Your task to perform on an android device: allow cookies in the chrome app Image 0: 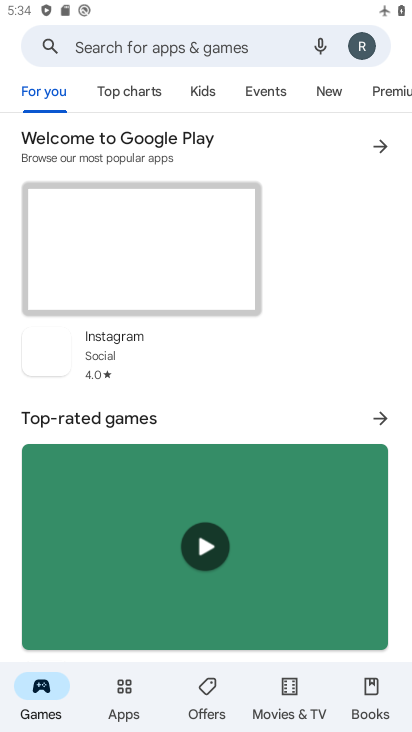
Step 0: press home button
Your task to perform on an android device: allow cookies in the chrome app Image 1: 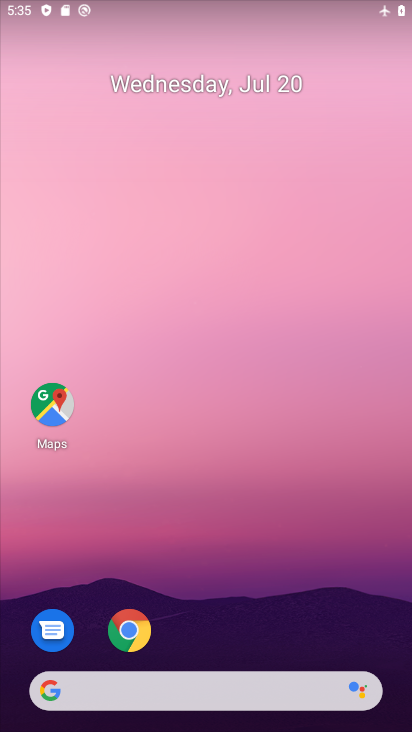
Step 1: drag from (265, 495) to (386, 46)
Your task to perform on an android device: allow cookies in the chrome app Image 2: 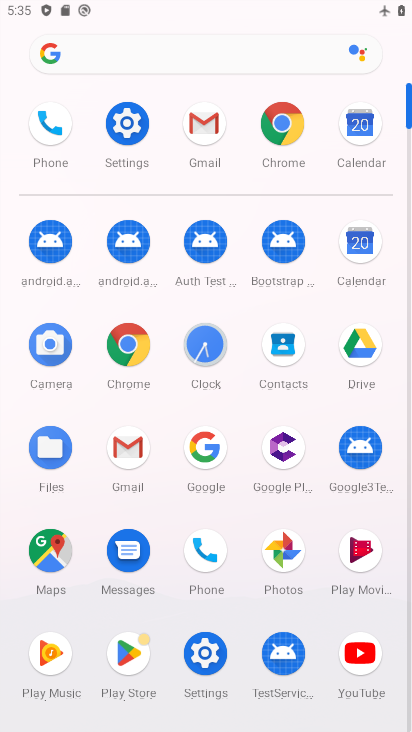
Step 2: click (137, 347)
Your task to perform on an android device: allow cookies in the chrome app Image 3: 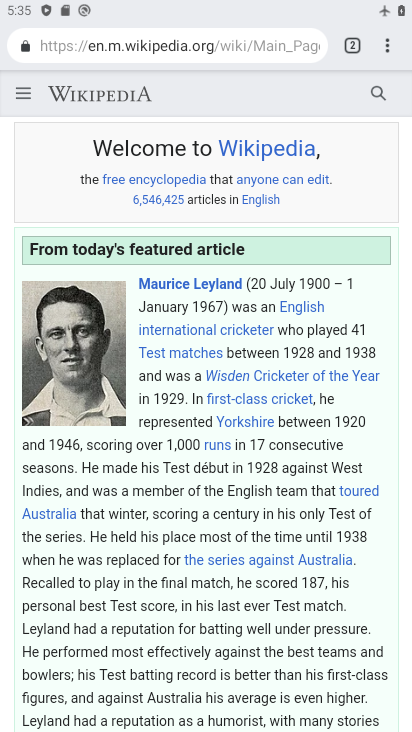
Step 3: drag from (388, 43) to (270, 503)
Your task to perform on an android device: allow cookies in the chrome app Image 4: 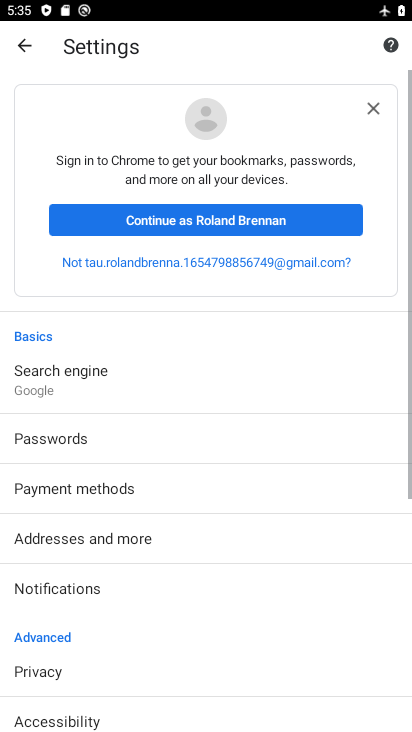
Step 4: drag from (232, 568) to (289, 165)
Your task to perform on an android device: allow cookies in the chrome app Image 5: 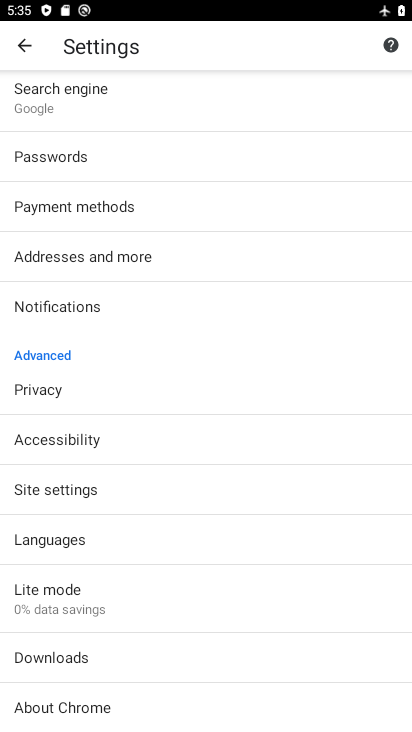
Step 5: click (139, 484)
Your task to perform on an android device: allow cookies in the chrome app Image 6: 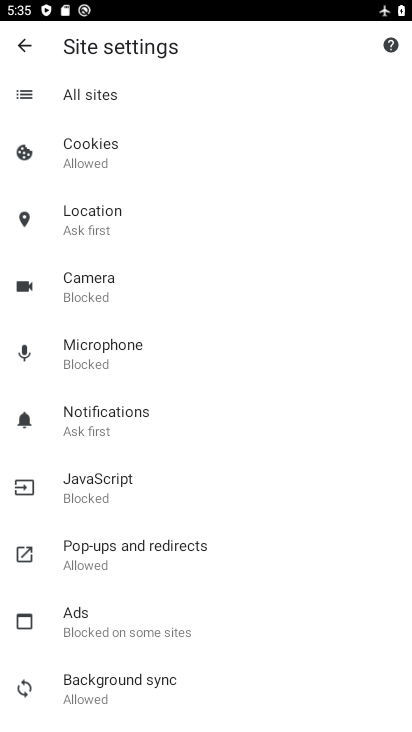
Step 6: click (163, 160)
Your task to perform on an android device: allow cookies in the chrome app Image 7: 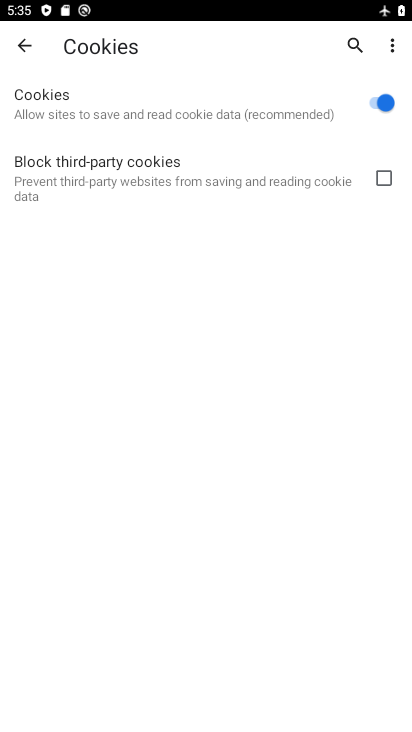
Step 7: task complete